Your task to perform on an android device: choose inbox layout in the gmail app Image 0: 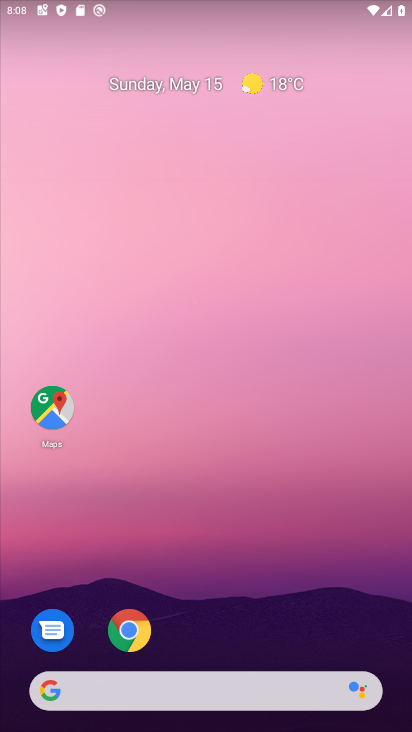
Step 0: drag from (181, 653) to (253, 41)
Your task to perform on an android device: choose inbox layout in the gmail app Image 1: 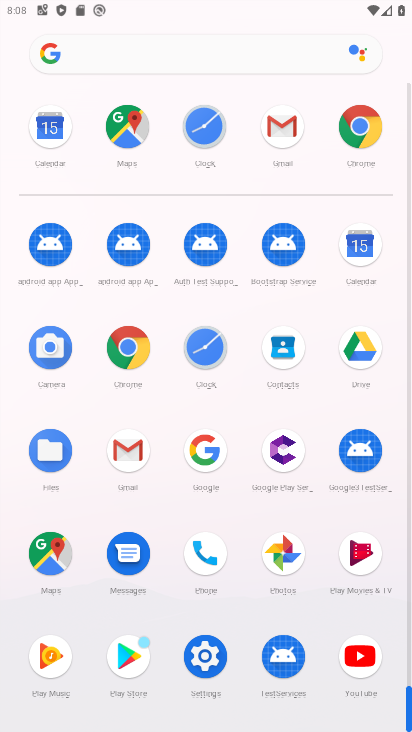
Step 1: click (136, 443)
Your task to perform on an android device: choose inbox layout in the gmail app Image 2: 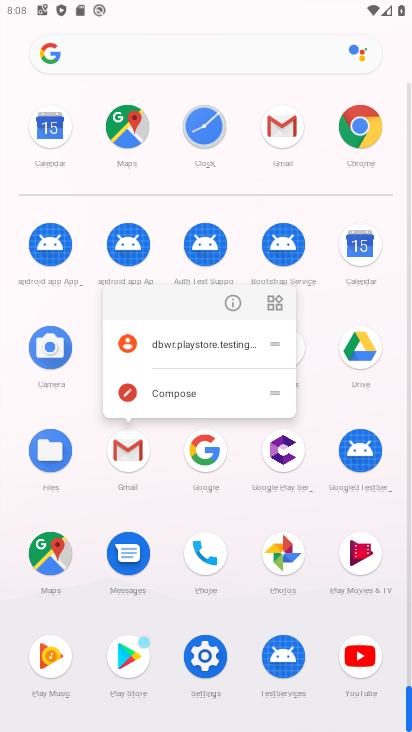
Step 2: click (145, 351)
Your task to perform on an android device: choose inbox layout in the gmail app Image 3: 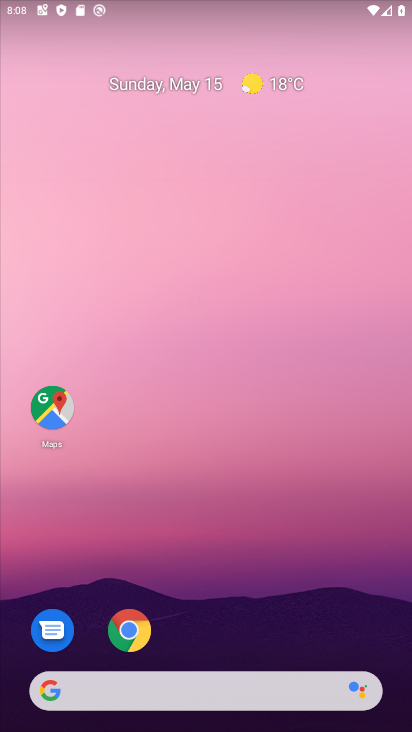
Step 3: drag from (191, 641) to (272, 121)
Your task to perform on an android device: choose inbox layout in the gmail app Image 4: 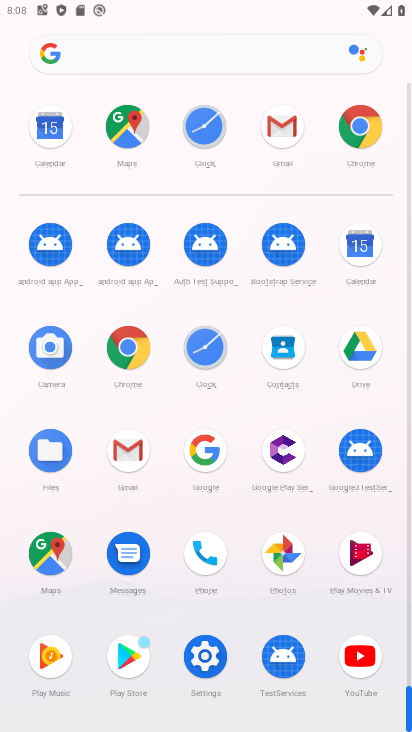
Step 4: click (129, 444)
Your task to perform on an android device: choose inbox layout in the gmail app Image 5: 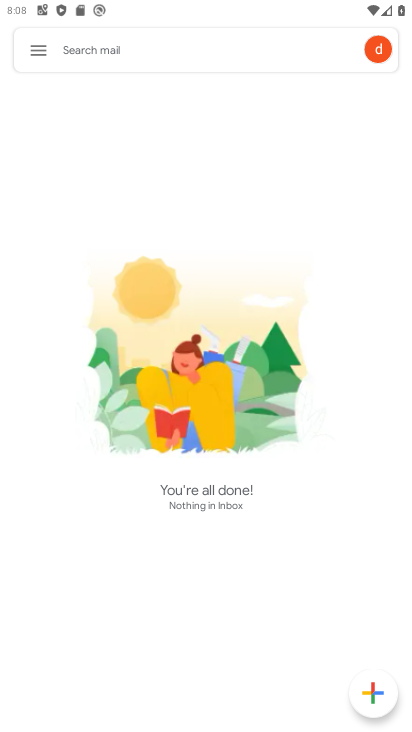
Step 5: click (37, 50)
Your task to perform on an android device: choose inbox layout in the gmail app Image 6: 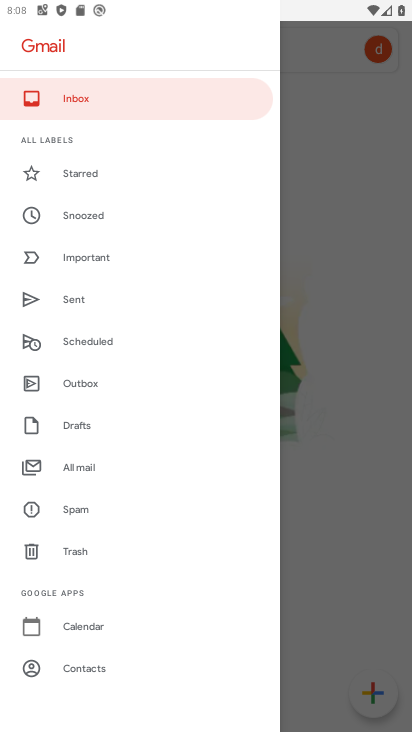
Step 6: click (64, 110)
Your task to perform on an android device: choose inbox layout in the gmail app Image 7: 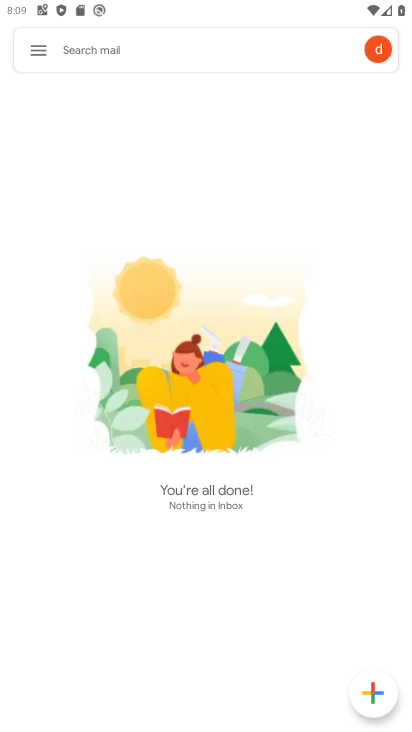
Step 7: task complete